Your task to perform on an android device: Open Wikipedia Image 0: 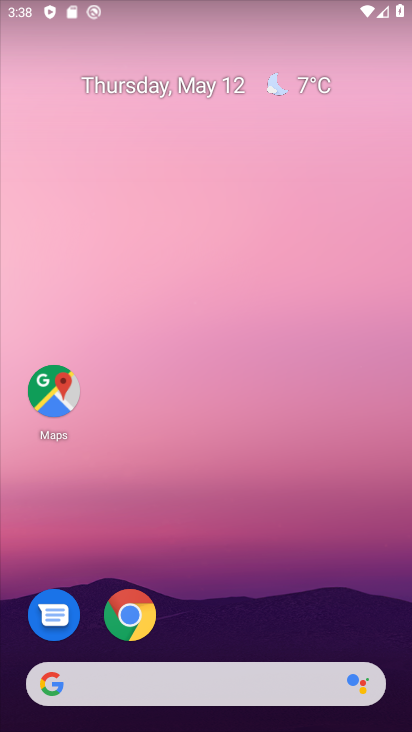
Step 0: click (112, 613)
Your task to perform on an android device: Open Wikipedia Image 1: 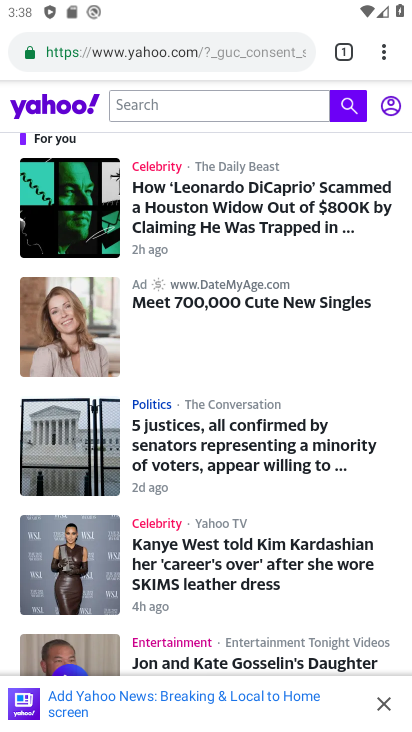
Step 1: click (353, 52)
Your task to perform on an android device: Open Wikipedia Image 2: 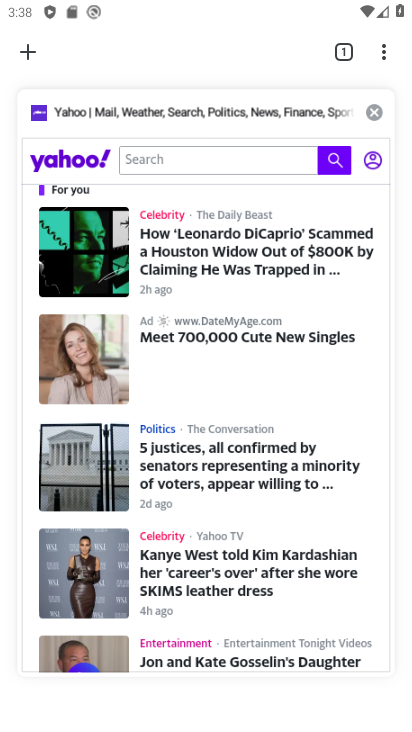
Step 2: click (368, 107)
Your task to perform on an android device: Open Wikipedia Image 3: 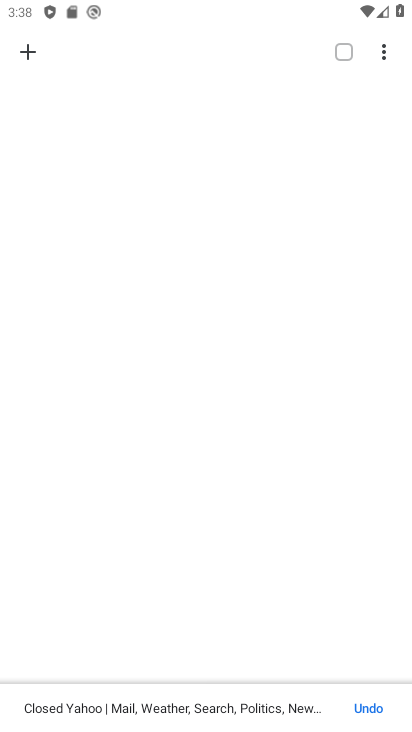
Step 3: click (27, 51)
Your task to perform on an android device: Open Wikipedia Image 4: 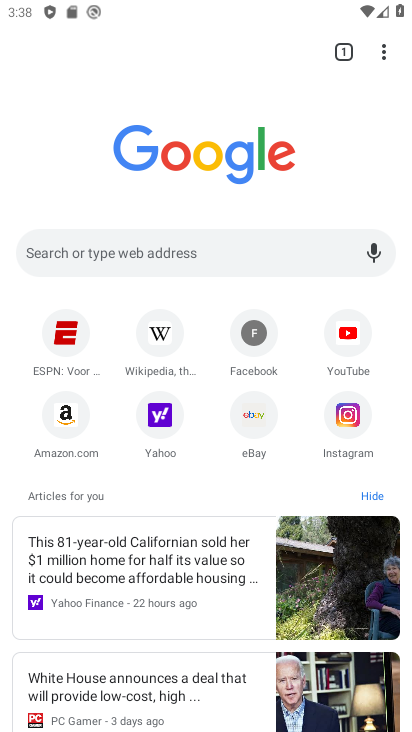
Step 4: click (153, 338)
Your task to perform on an android device: Open Wikipedia Image 5: 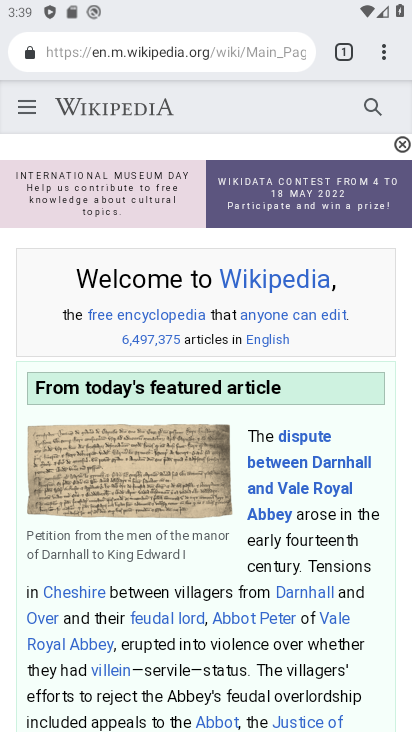
Step 5: task complete